Your task to perform on an android device: empty trash in google photos Image 0: 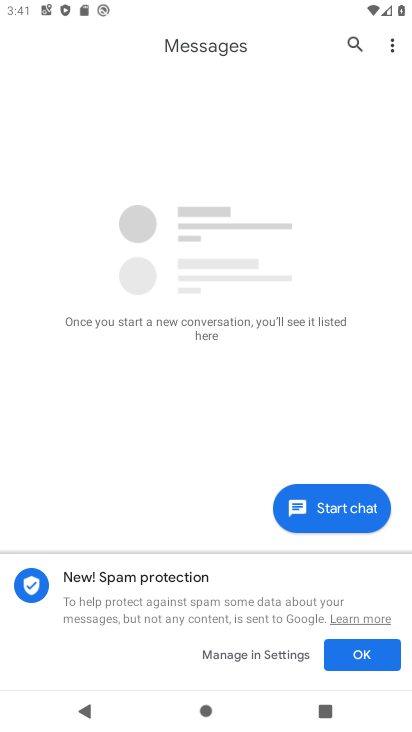
Step 0: press home button
Your task to perform on an android device: empty trash in google photos Image 1: 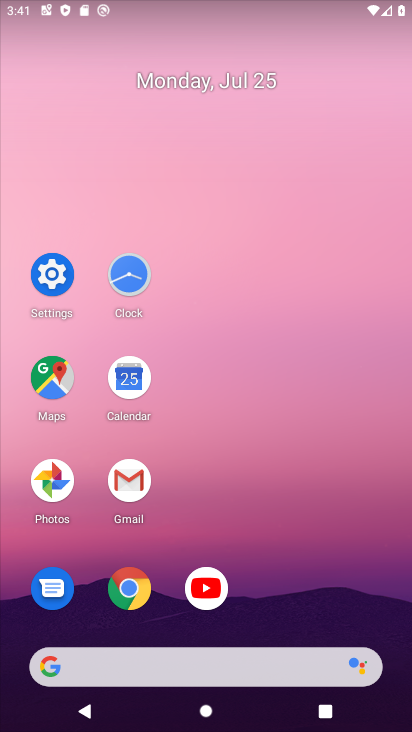
Step 1: click (52, 492)
Your task to perform on an android device: empty trash in google photos Image 2: 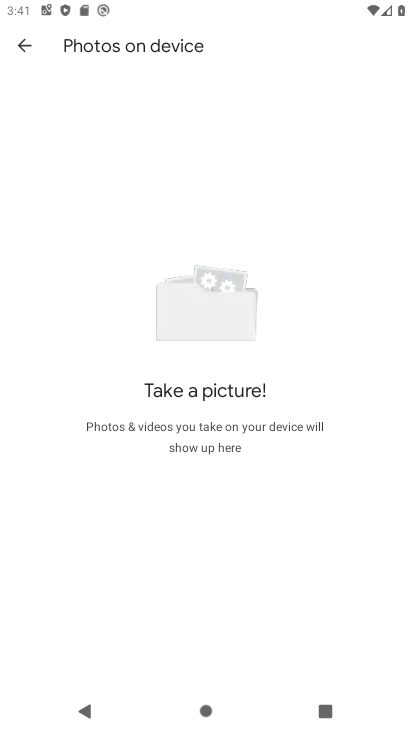
Step 2: click (29, 49)
Your task to perform on an android device: empty trash in google photos Image 3: 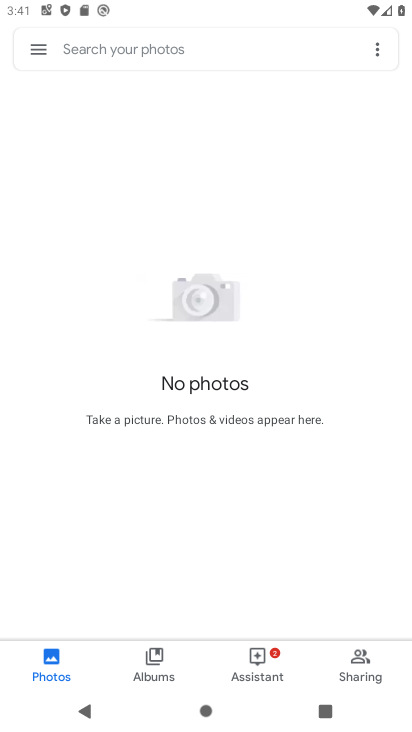
Step 3: click (90, 48)
Your task to perform on an android device: empty trash in google photos Image 4: 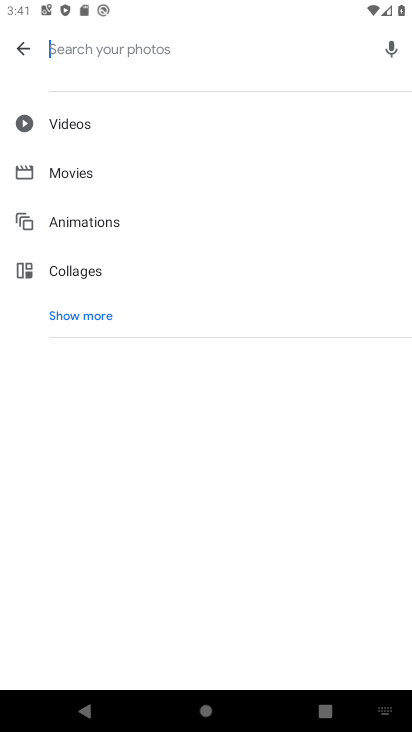
Step 4: click (24, 39)
Your task to perform on an android device: empty trash in google photos Image 5: 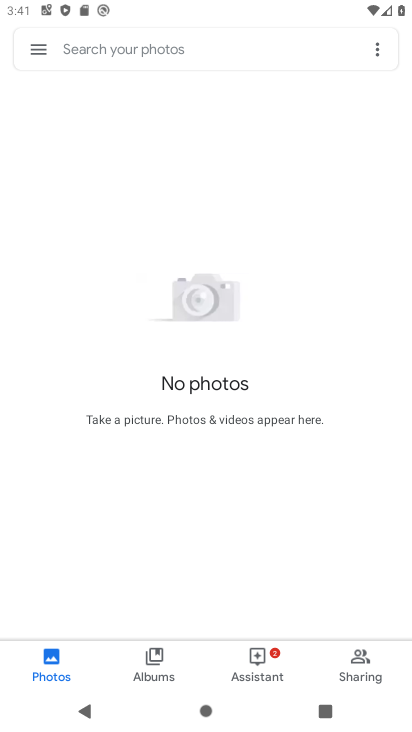
Step 5: click (24, 39)
Your task to perform on an android device: empty trash in google photos Image 6: 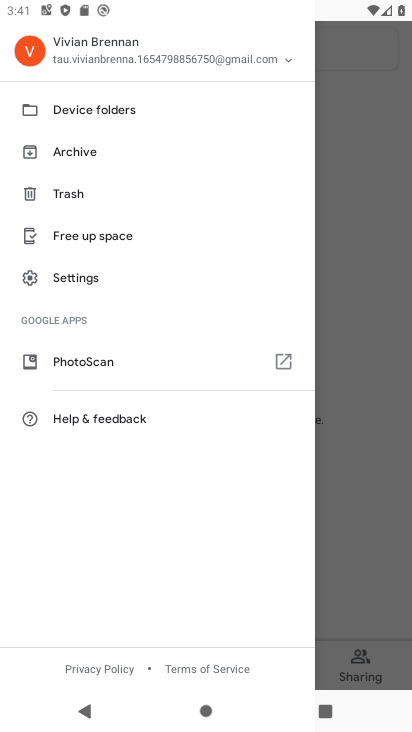
Step 6: click (67, 192)
Your task to perform on an android device: empty trash in google photos Image 7: 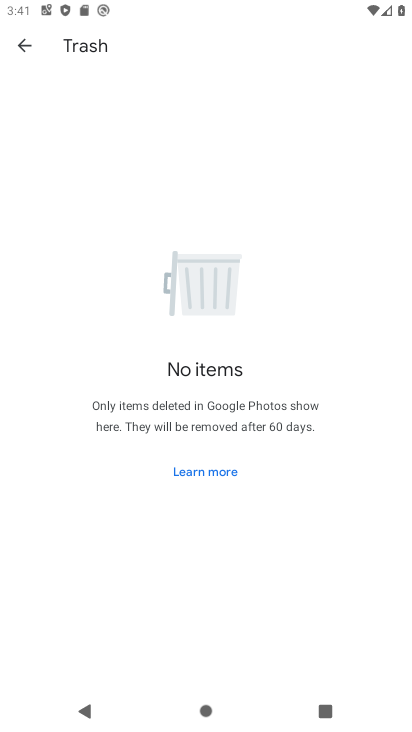
Step 7: task complete